Your task to perform on an android device: toggle show notifications on the lock screen Image 0: 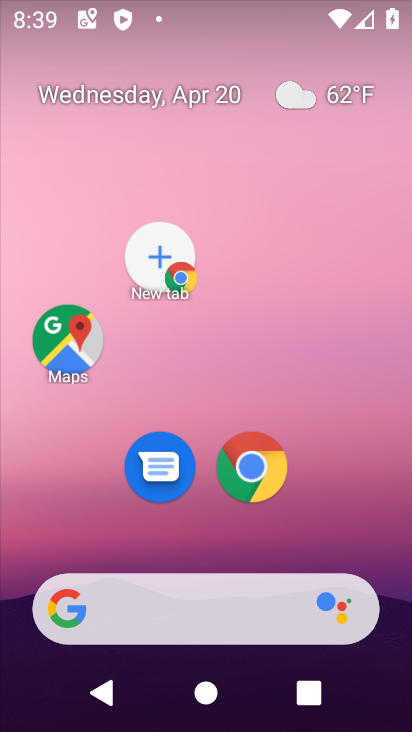
Step 0: drag from (383, 694) to (172, 153)
Your task to perform on an android device: toggle show notifications on the lock screen Image 1: 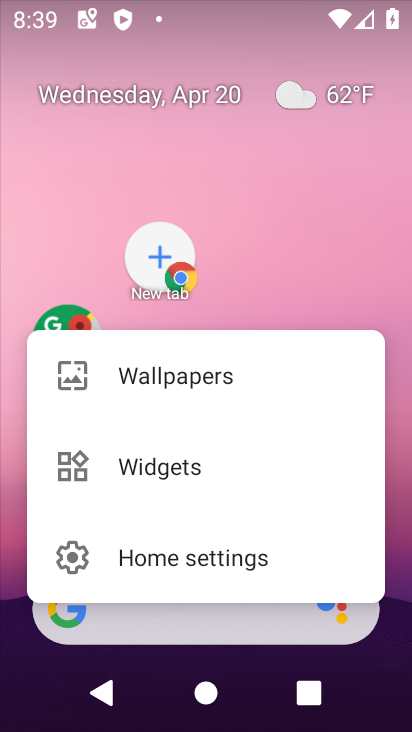
Step 1: click (276, 249)
Your task to perform on an android device: toggle show notifications on the lock screen Image 2: 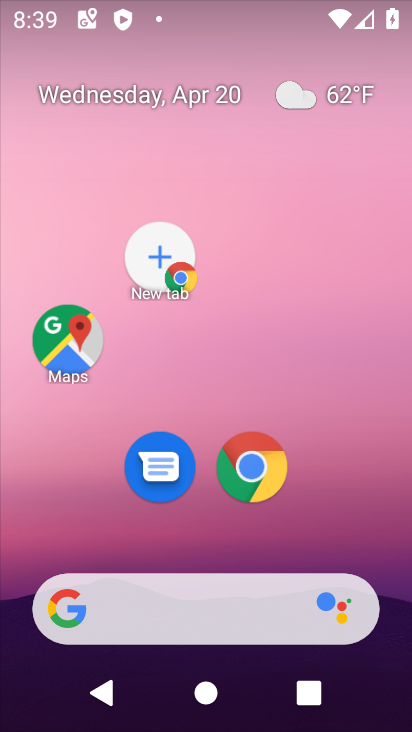
Step 2: drag from (352, 577) to (204, 3)
Your task to perform on an android device: toggle show notifications on the lock screen Image 3: 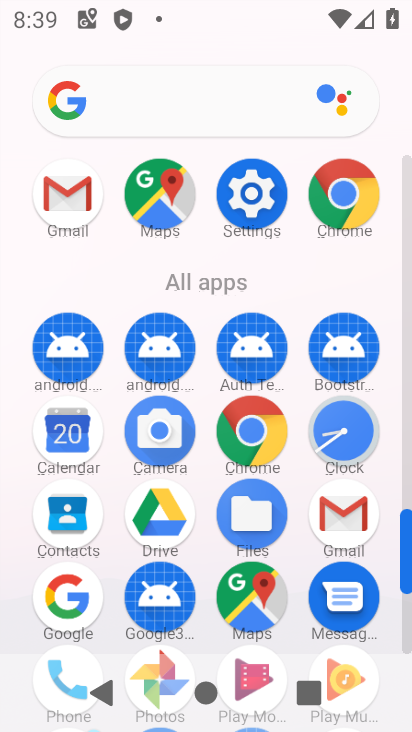
Step 3: click (245, 187)
Your task to perform on an android device: toggle show notifications on the lock screen Image 4: 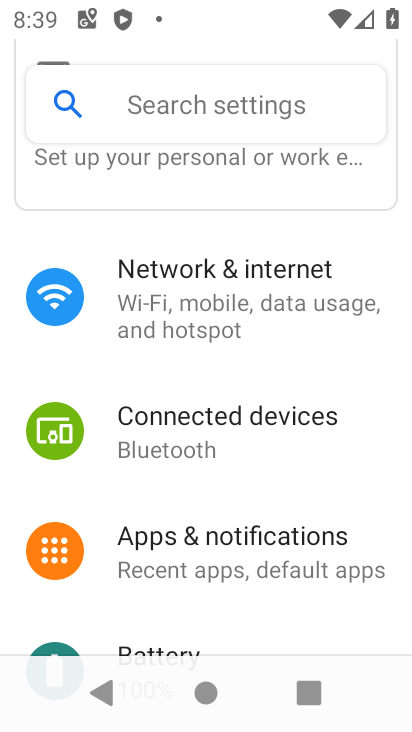
Step 4: click (221, 539)
Your task to perform on an android device: toggle show notifications on the lock screen Image 5: 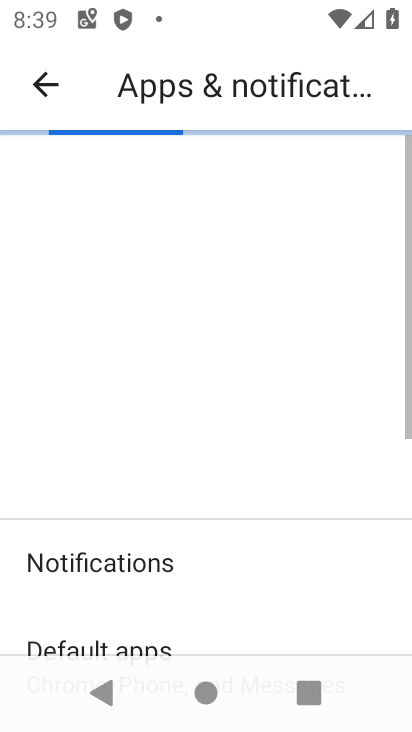
Step 5: click (213, 543)
Your task to perform on an android device: toggle show notifications on the lock screen Image 6: 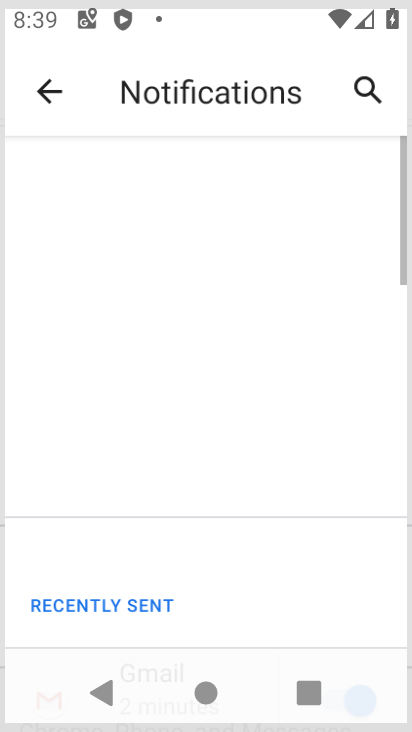
Step 6: click (122, 575)
Your task to perform on an android device: toggle show notifications on the lock screen Image 7: 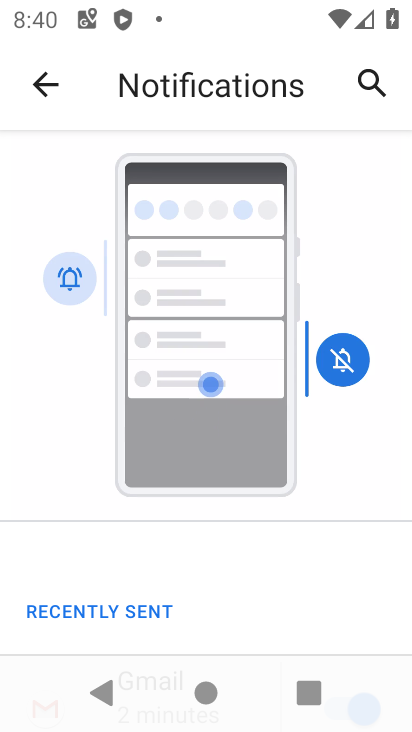
Step 7: drag from (236, 563) to (104, 173)
Your task to perform on an android device: toggle show notifications on the lock screen Image 8: 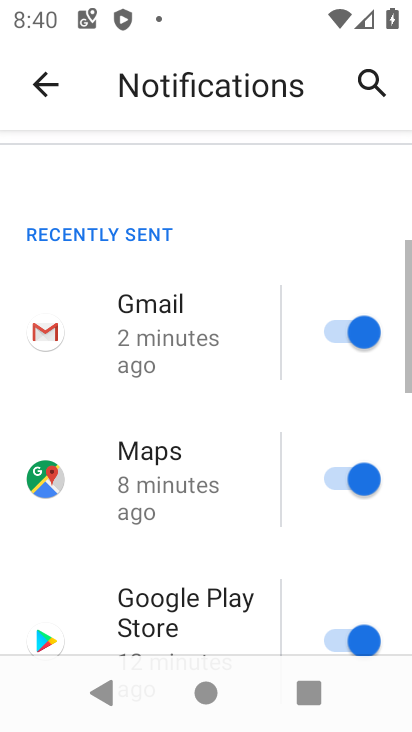
Step 8: drag from (203, 550) to (144, 99)
Your task to perform on an android device: toggle show notifications on the lock screen Image 9: 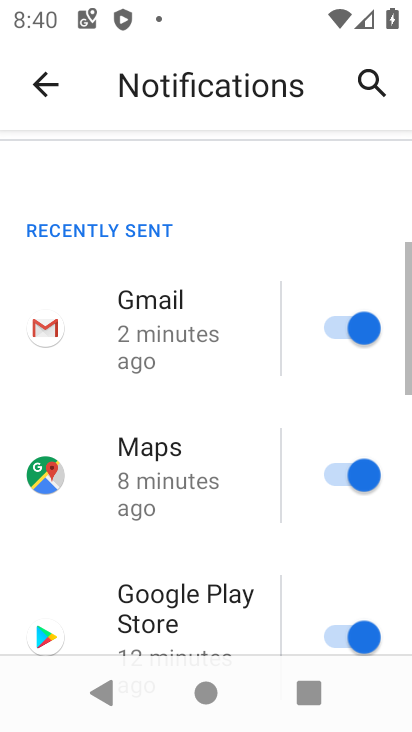
Step 9: drag from (184, 512) to (138, 29)
Your task to perform on an android device: toggle show notifications on the lock screen Image 10: 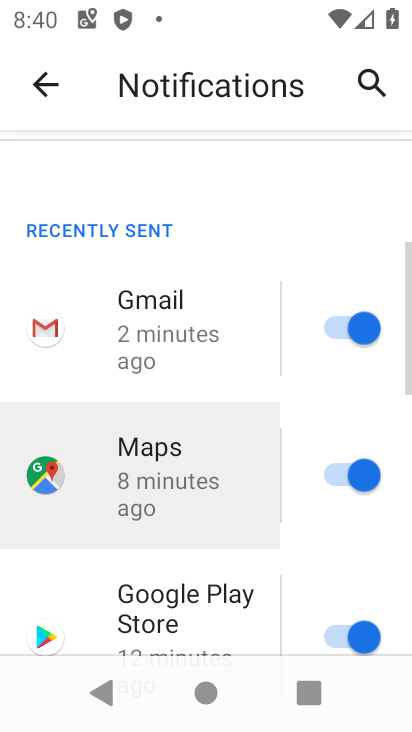
Step 10: drag from (228, 379) to (213, 168)
Your task to perform on an android device: toggle show notifications on the lock screen Image 11: 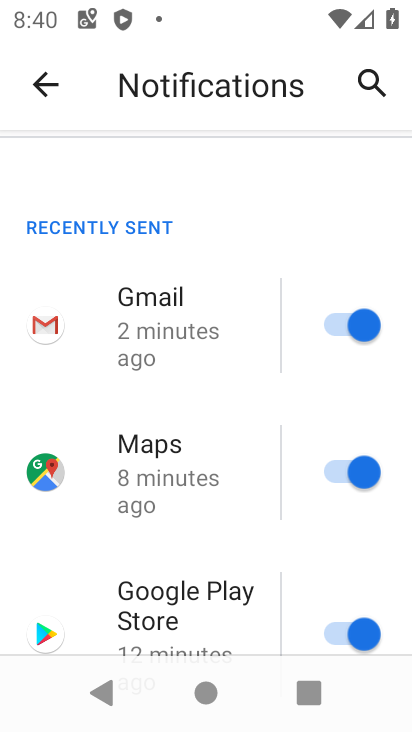
Step 11: drag from (201, 356) to (154, 150)
Your task to perform on an android device: toggle show notifications on the lock screen Image 12: 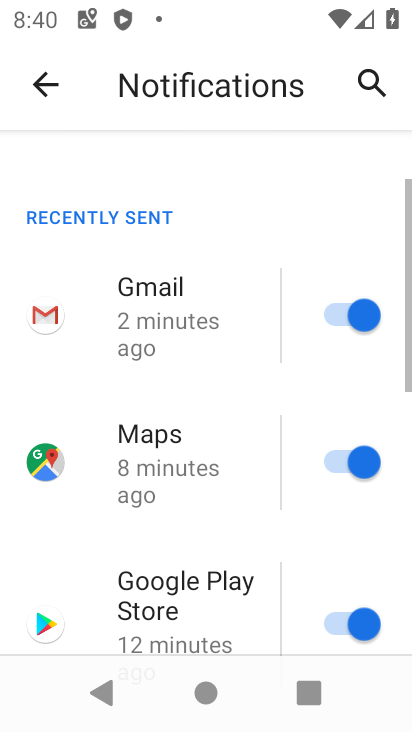
Step 12: drag from (213, 454) to (159, 202)
Your task to perform on an android device: toggle show notifications on the lock screen Image 13: 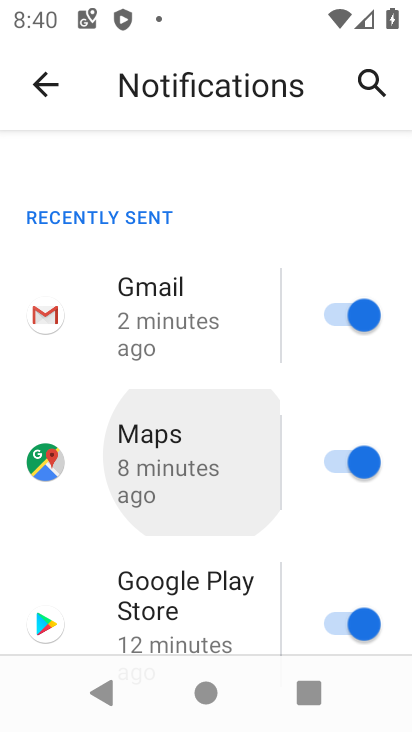
Step 13: drag from (252, 502) to (179, 200)
Your task to perform on an android device: toggle show notifications on the lock screen Image 14: 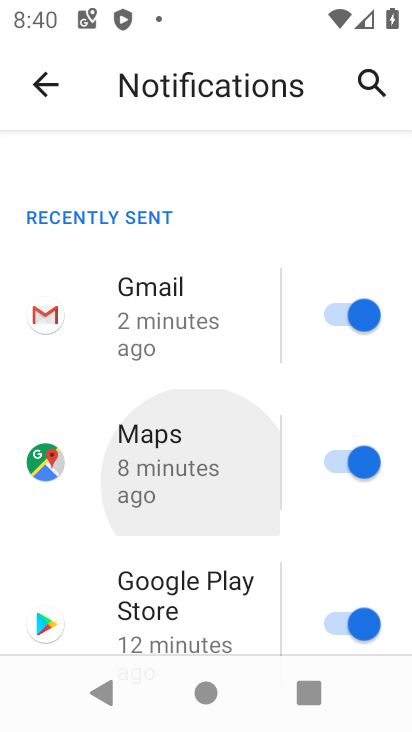
Step 14: drag from (254, 534) to (221, 173)
Your task to perform on an android device: toggle show notifications on the lock screen Image 15: 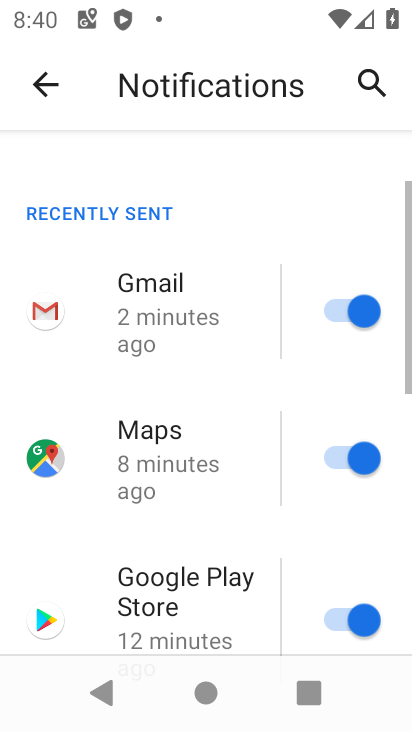
Step 15: drag from (198, 253) to (196, 60)
Your task to perform on an android device: toggle show notifications on the lock screen Image 16: 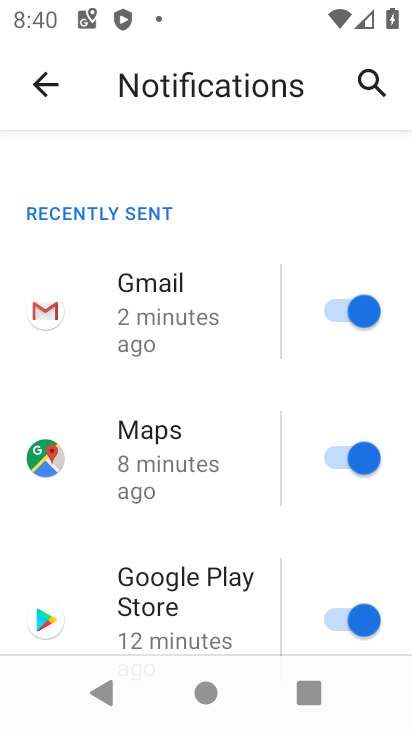
Step 16: drag from (215, 513) to (141, 200)
Your task to perform on an android device: toggle show notifications on the lock screen Image 17: 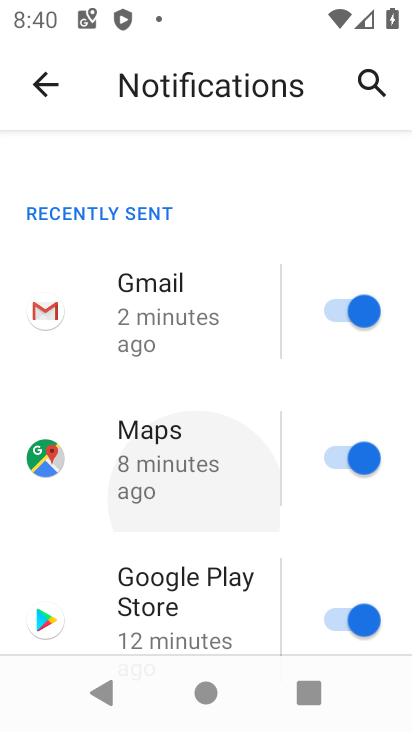
Step 17: drag from (155, 458) to (91, 142)
Your task to perform on an android device: toggle show notifications on the lock screen Image 18: 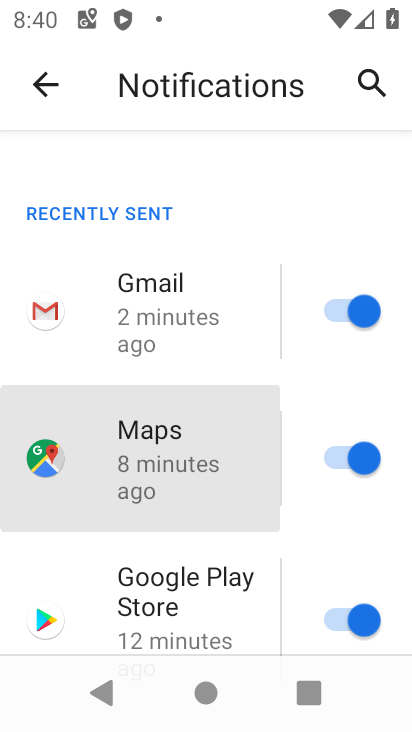
Step 18: drag from (267, 552) to (203, 134)
Your task to perform on an android device: toggle show notifications on the lock screen Image 19: 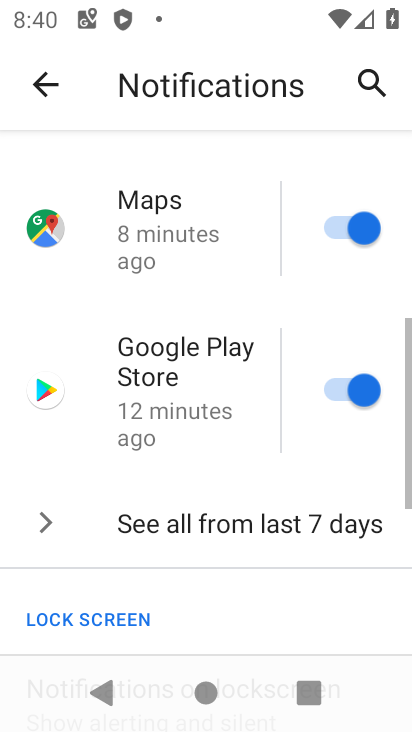
Step 19: drag from (187, 241) to (183, 201)
Your task to perform on an android device: toggle show notifications on the lock screen Image 20: 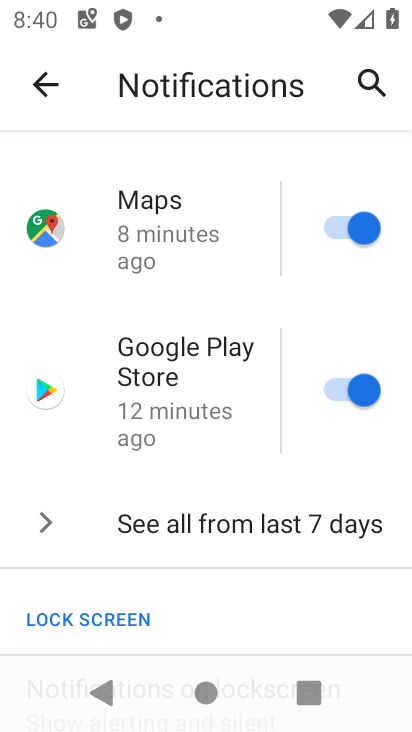
Step 20: drag from (150, 573) to (124, 186)
Your task to perform on an android device: toggle show notifications on the lock screen Image 21: 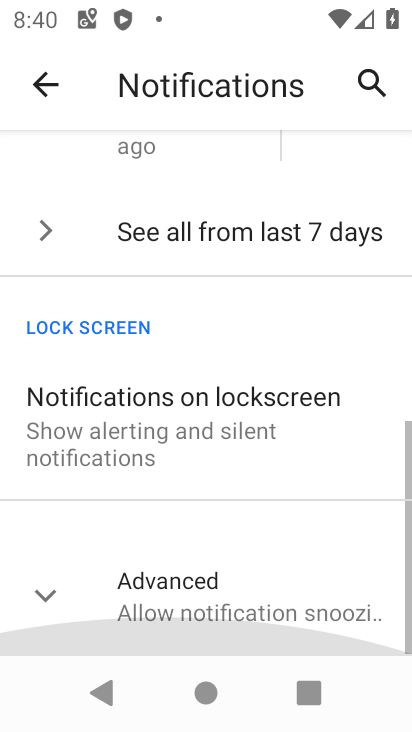
Step 21: drag from (157, 450) to (159, 136)
Your task to perform on an android device: toggle show notifications on the lock screen Image 22: 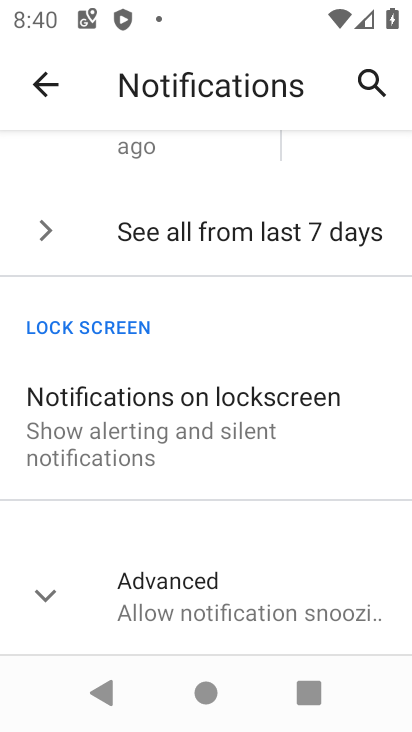
Step 22: click (185, 417)
Your task to perform on an android device: toggle show notifications on the lock screen Image 23: 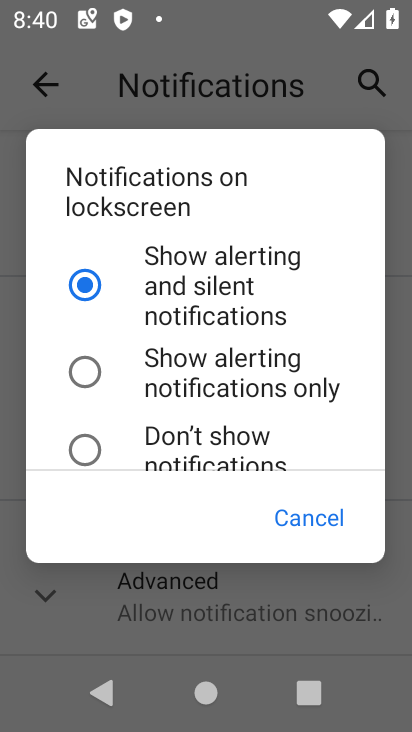
Step 23: task complete